Your task to perform on an android device: star an email in the gmail app Image 0: 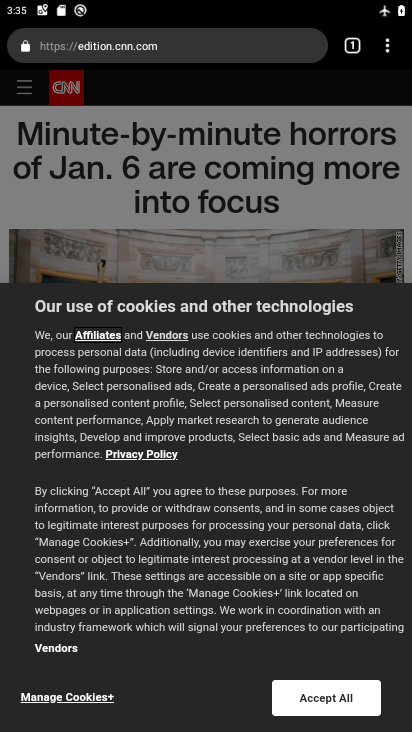
Step 0: press home button
Your task to perform on an android device: star an email in the gmail app Image 1: 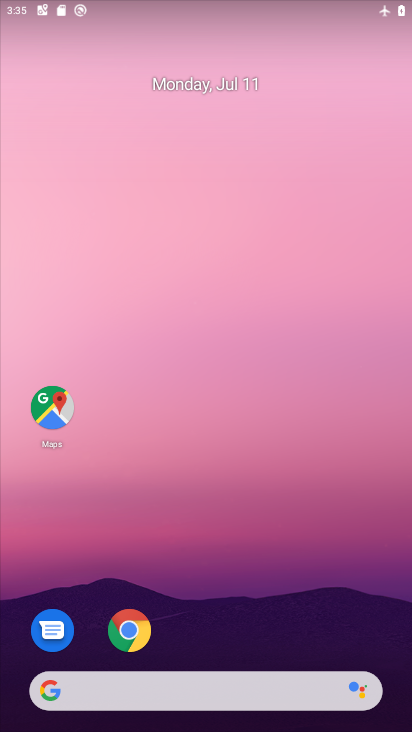
Step 1: drag from (299, 654) to (277, 102)
Your task to perform on an android device: star an email in the gmail app Image 2: 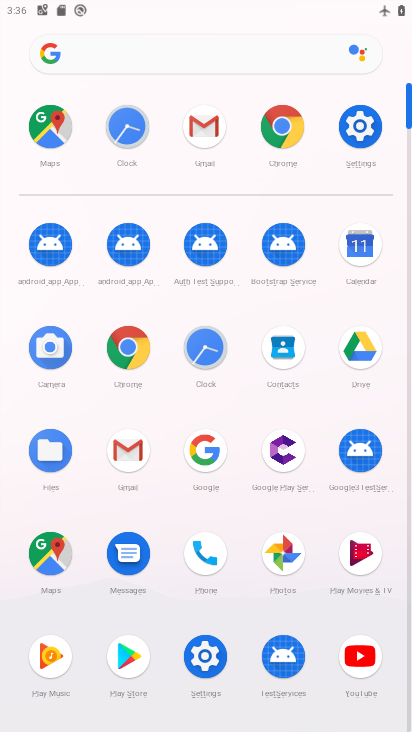
Step 2: click (132, 465)
Your task to perform on an android device: star an email in the gmail app Image 3: 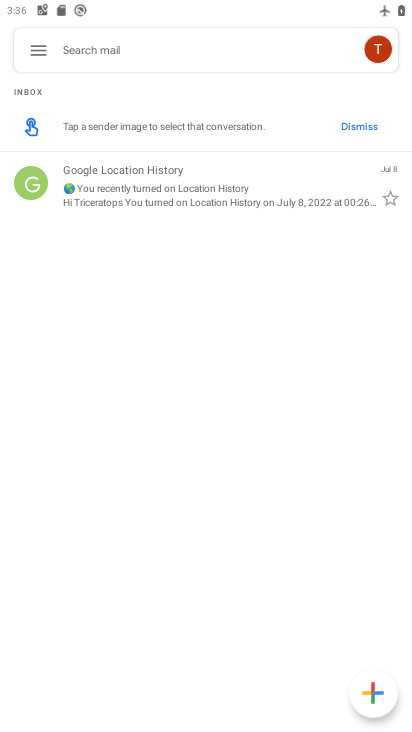
Step 3: click (40, 61)
Your task to perform on an android device: star an email in the gmail app Image 4: 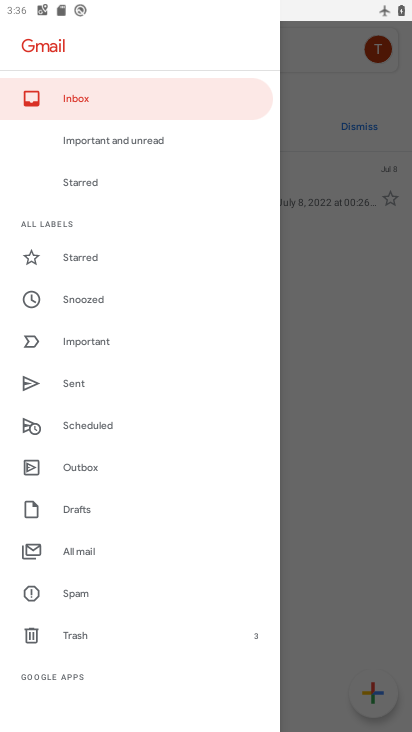
Step 4: click (51, 270)
Your task to perform on an android device: star an email in the gmail app Image 5: 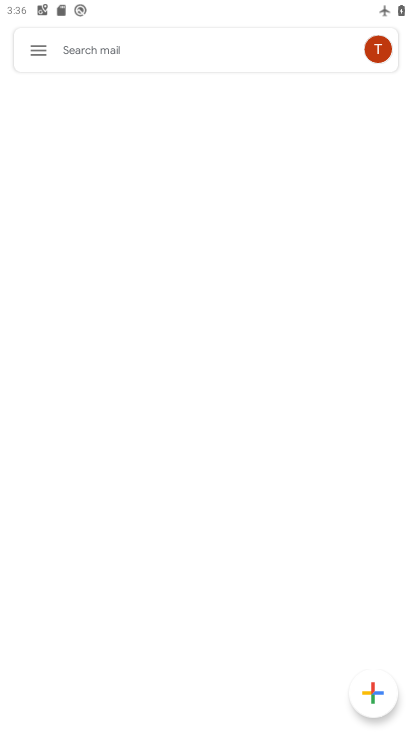
Step 5: click (51, 270)
Your task to perform on an android device: star an email in the gmail app Image 6: 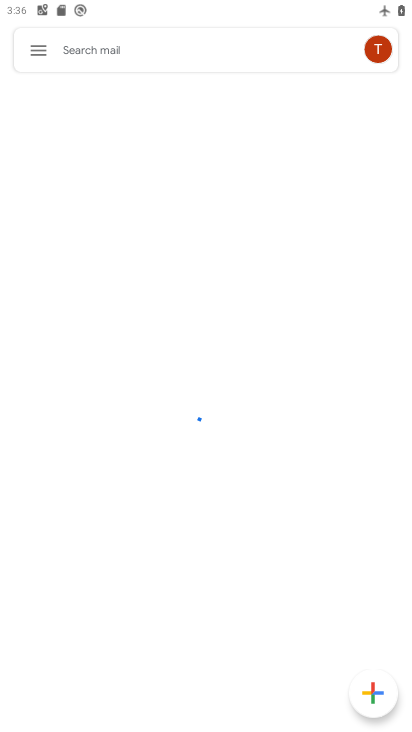
Step 6: task complete